Your task to perform on an android device: Open the calendar app, open the side menu, and click the "Day" option Image 0: 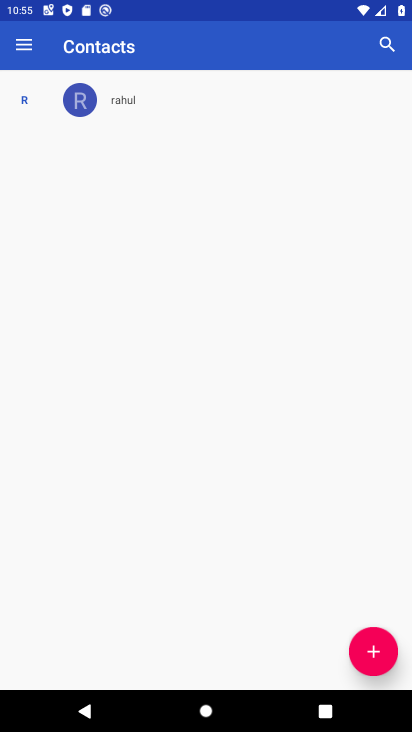
Step 0: press home button
Your task to perform on an android device: Open the calendar app, open the side menu, and click the "Day" option Image 1: 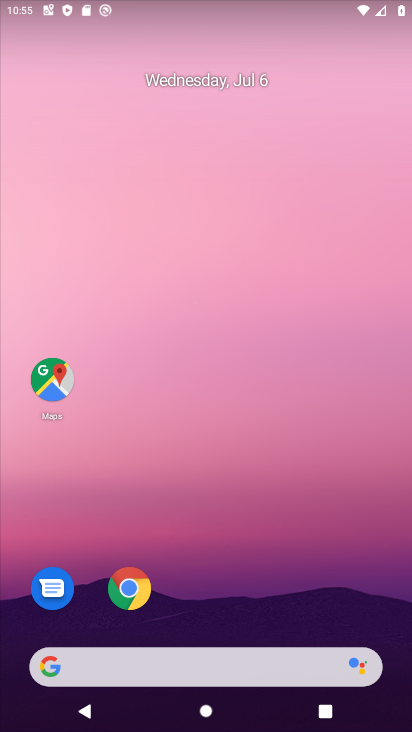
Step 1: drag from (201, 643) to (192, 237)
Your task to perform on an android device: Open the calendar app, open the side menu, and click the "Day" option Image 2: 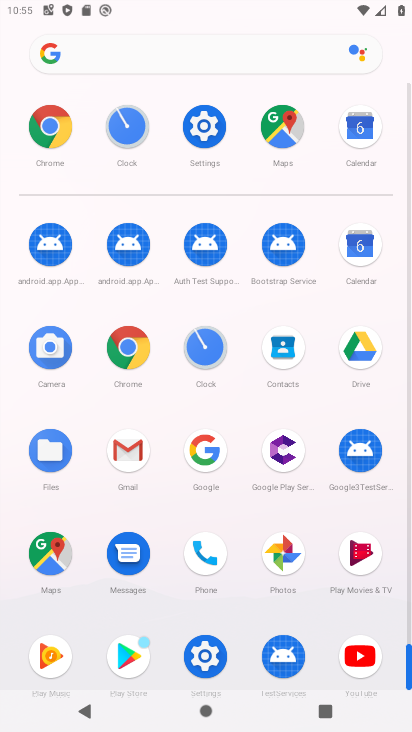
Step 2: click (363, 238)
Your task to perform on an android device: Open the calendar app, open the side menu, and click the "Day" option Image 3: 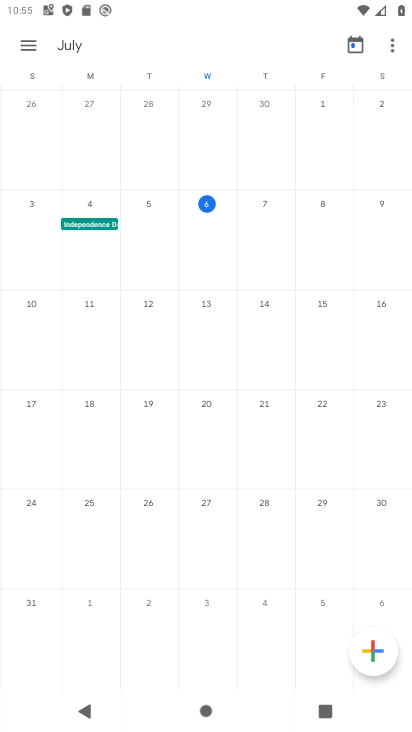
Step 3: click (20, 42)
Your task to perform on an android device: Open the calendar app, open the side menu, and click the "Day" option Image 4: 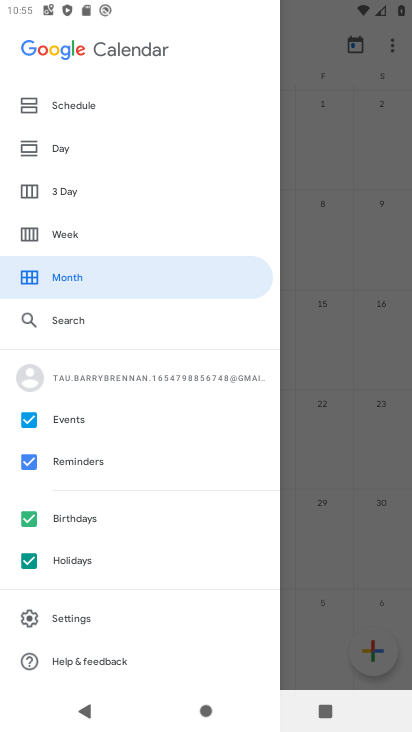
Step 4: click (76, 153)
Your task to perform on an android device: Open the calendar app, open the side menu, and click the "Day" option Image 5: 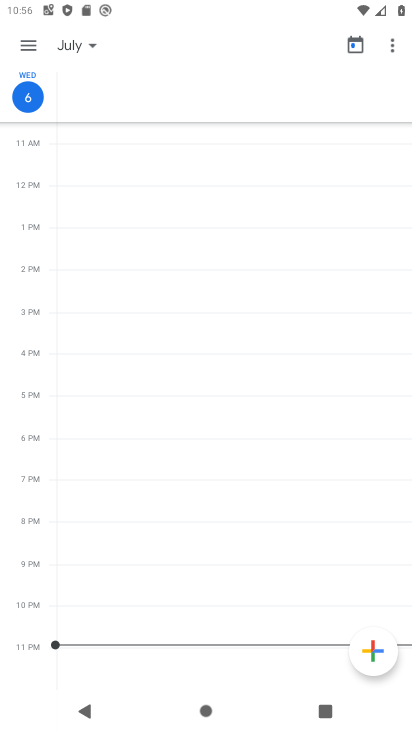
Step 5: task complete